Your task to perform on an android device: Open Google Chrome and click the shortcut for Amazon.com Image 0: 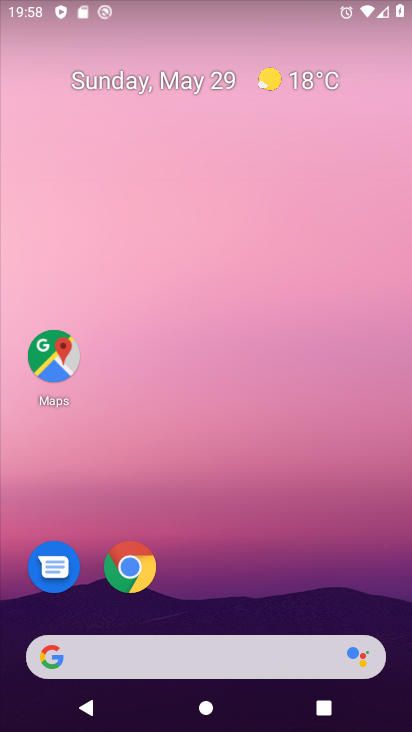
Step 0: click (125, 569)
Your task to perform on an android device: Open Google Chrome and click the shortcut for Amazon.com Image 1: 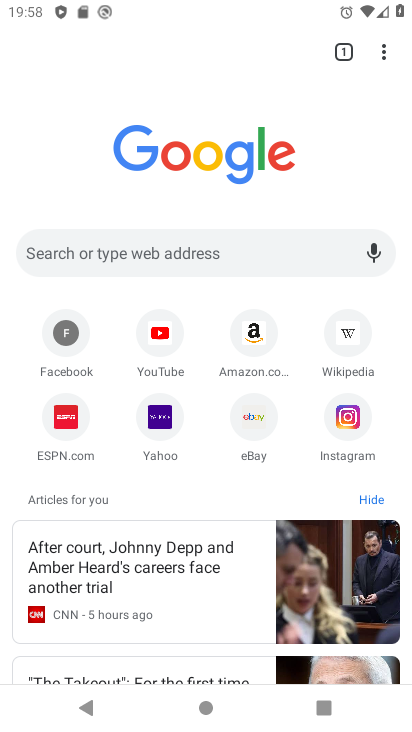
Step 1: click (250, 330)
Your task to perform on an android device: Open Google Chrome and click the shortcut for Amazon.com Image 2: 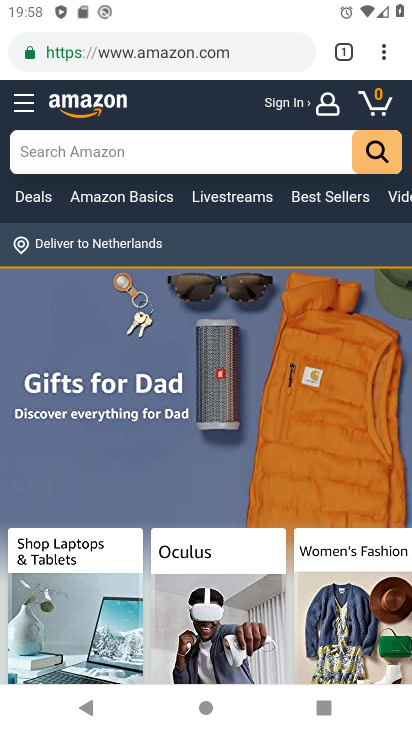
Step 2: task complete